Your task to perform on an android device: turn off picture-in-picture Image 0: 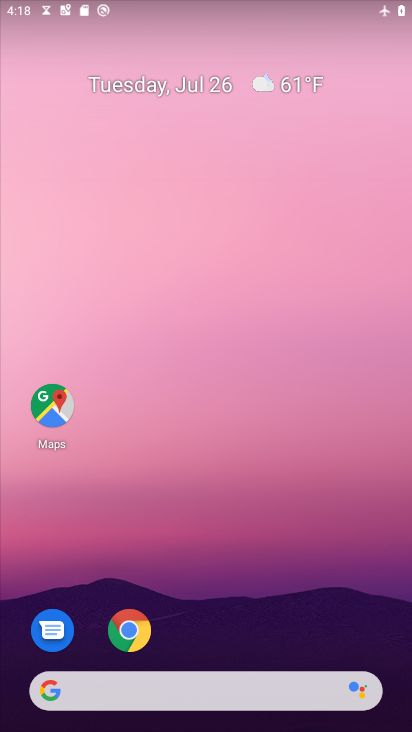
Step 0: drag from (217, 618) to (84, 116)
Your task to perform on an android device: turn off picture-in-picture Image 1: 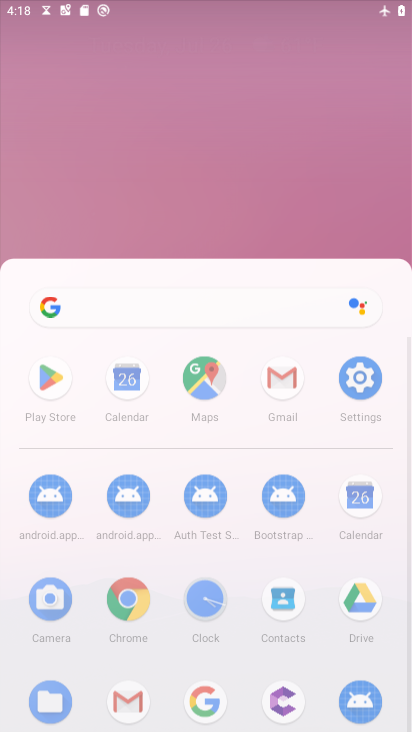
Step 1: drag from (161, 340) to (171, 45)
Your task to perform on an android device: turn off picture-in-picture Image 2: 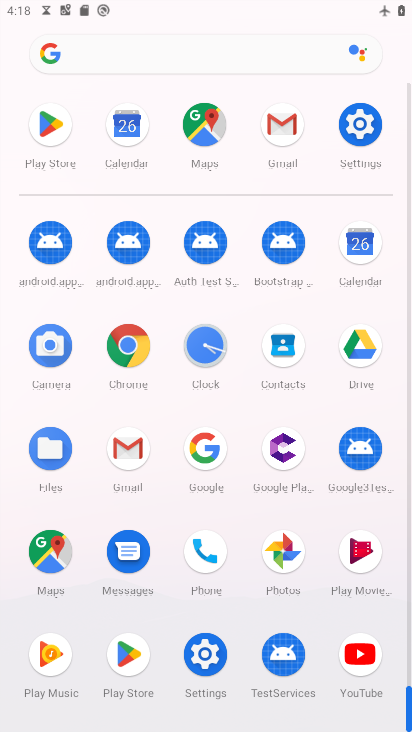
Step 2: click (133, 345)
Your task to perform on an android device: turn off picture-in-picture Image 3: 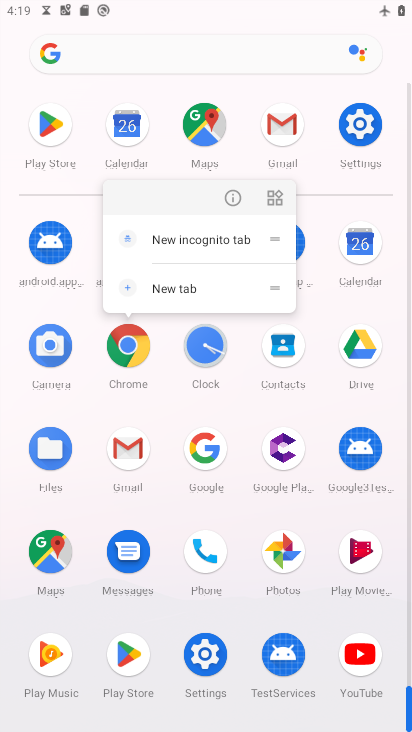
Step 3: click (222, 200)
Your task to perform on an android device: turn off picture-in-picture Image 4: 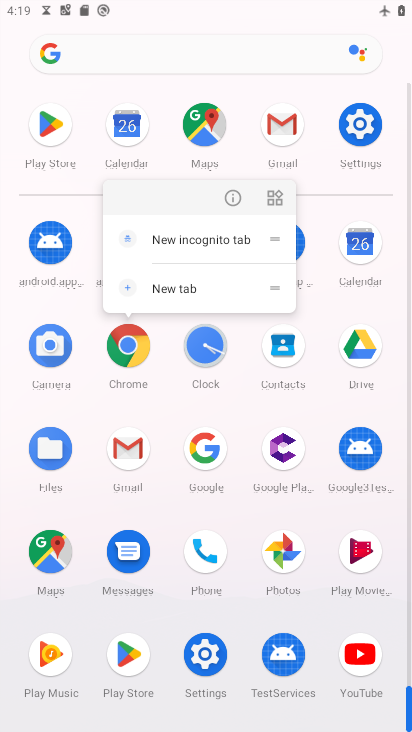
Step 4: click (226, 202)
Your task to perform on an android device: turn off picture-in-picture Image 5: 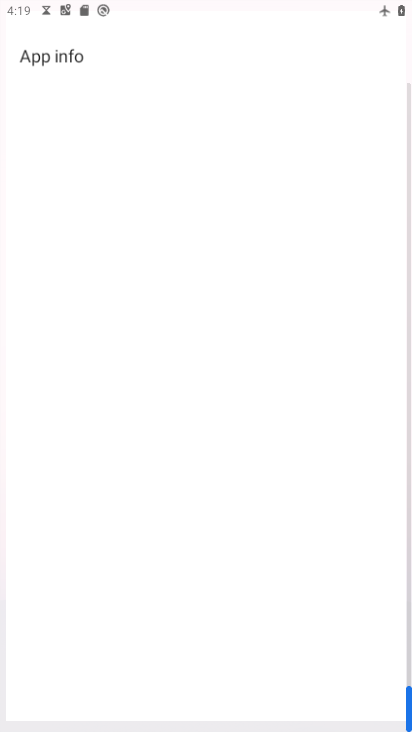
Step 5: click (226, 201)
Your task to perform on an android device: turn off picture-in-picture Image 6: 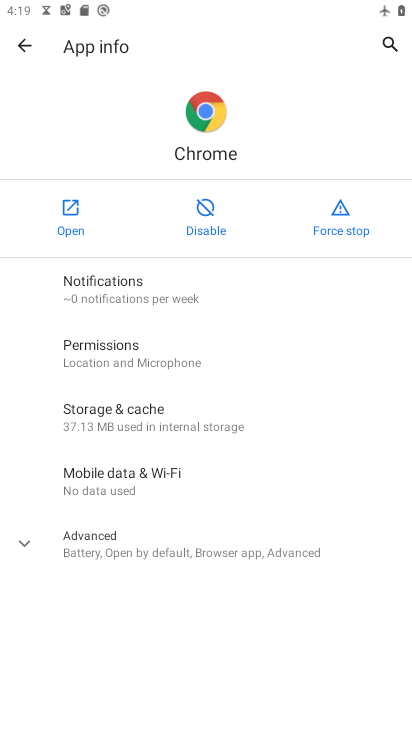
Step 6: click (94, 535)
Your task to perform on an android device: turn off picture-in-picture Image 7: 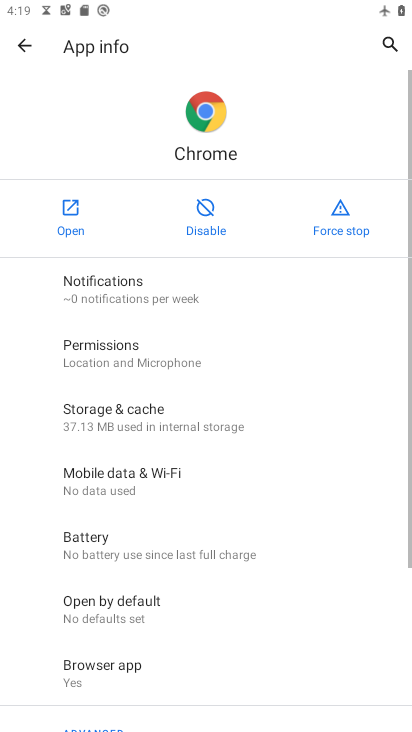
Step 7: click (94, 535)
Your task to perform on an android device: turn off picture-in-picture Image 8: 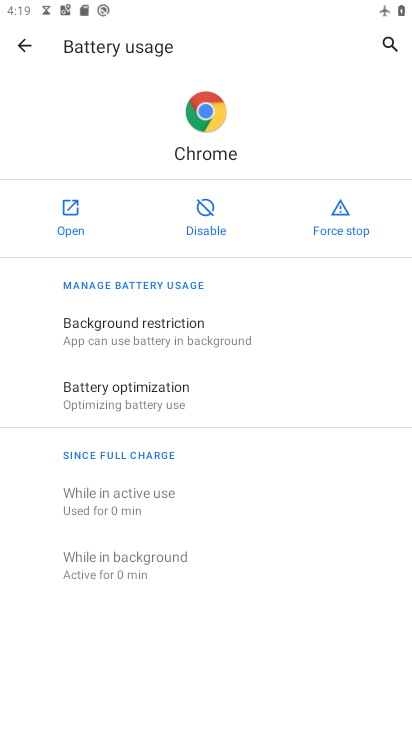
Step 8: click (21, 48)
Your task to perform on an android device: turn off picture-in-picture Image 9: 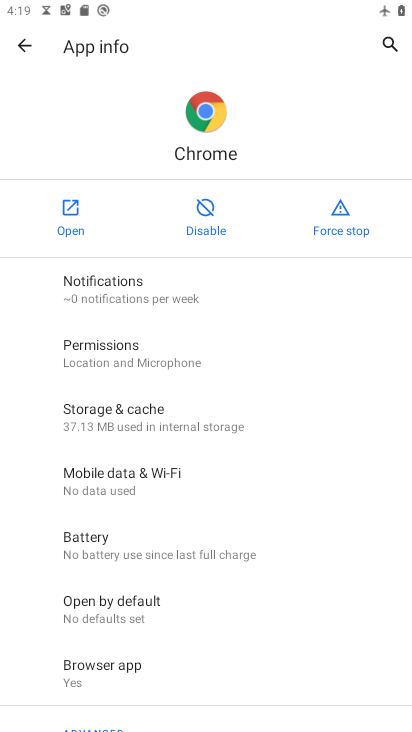
Step 9: drag from (102, 640) to (102, 282)
Your task to perform on an android device: turn off picture-in-picture Image 10: 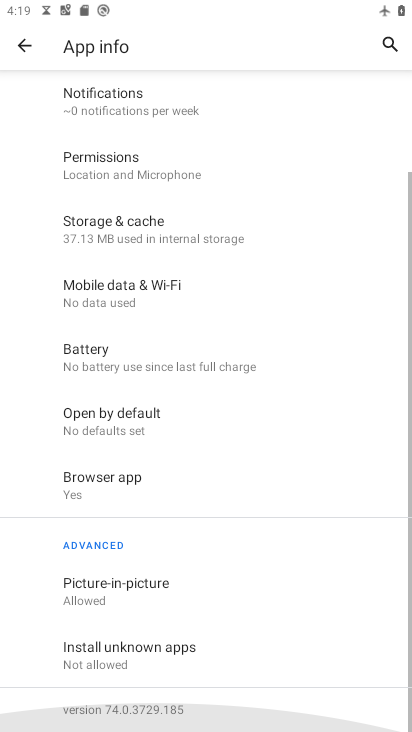
Step 10: drag from (156, 537) to (153, 444)
Your task to perform on an android device: turn off picture-in-picture Image 11: 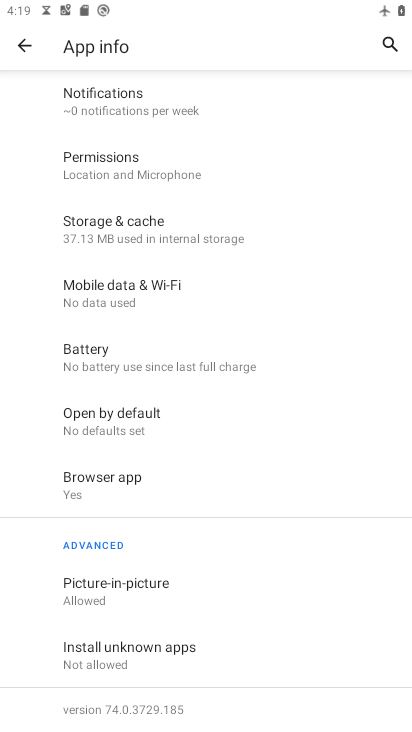
Step 11: click (94, 644)
Your task to perform on an android device: turn off picture-in-picture Image 12: 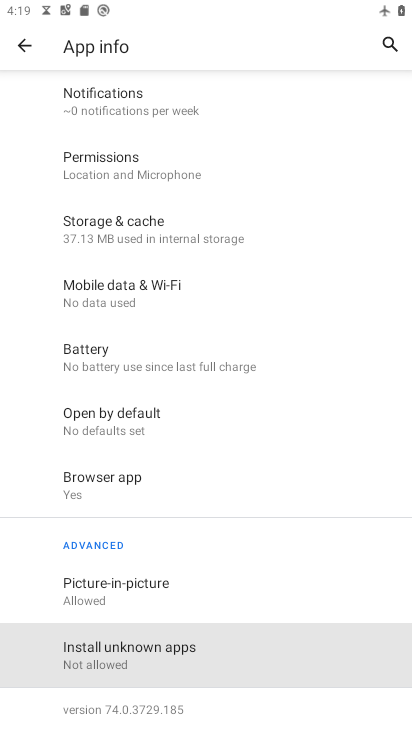
Step 12: click (93, 645)
Your task to perform on an android device: turn off picture-in-picture Image 13: 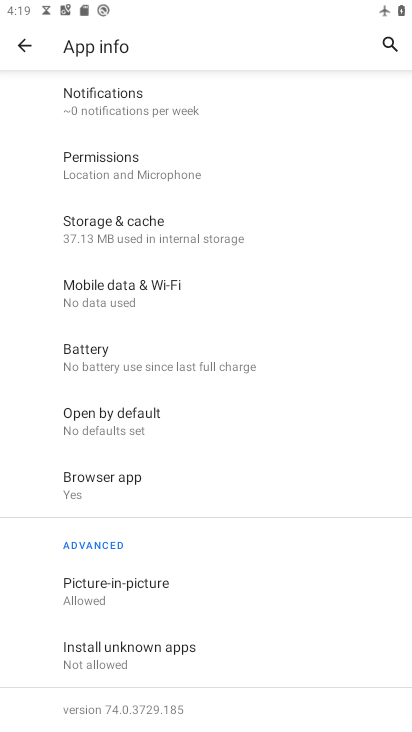
Step 13: click (94, 646)
Your task to perform on an android device: turn off picture-in-picture Image 14: 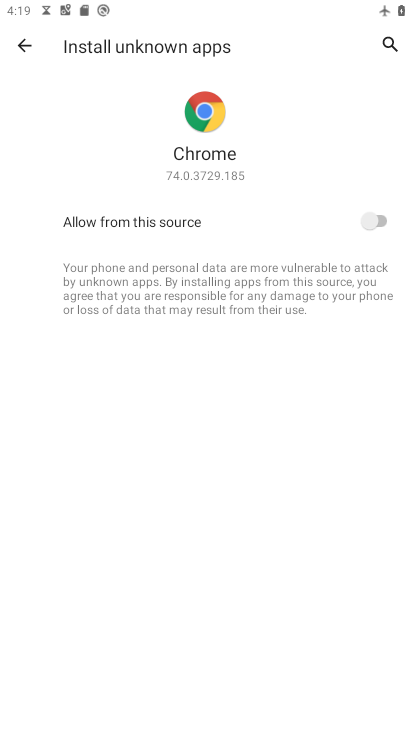
Step 14: click (92, 640)
Your task to perform on an android device: turn off picture-in-picture Image 15: 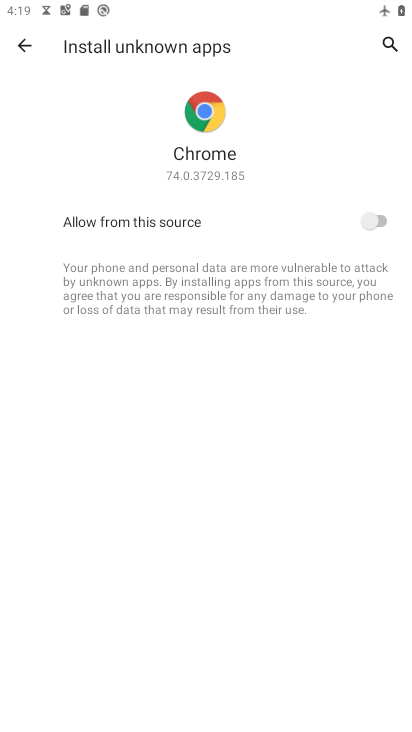
Step 15: click (19, 34)
Your task to perform on an android device: turn off picture-in-picture Image 16: 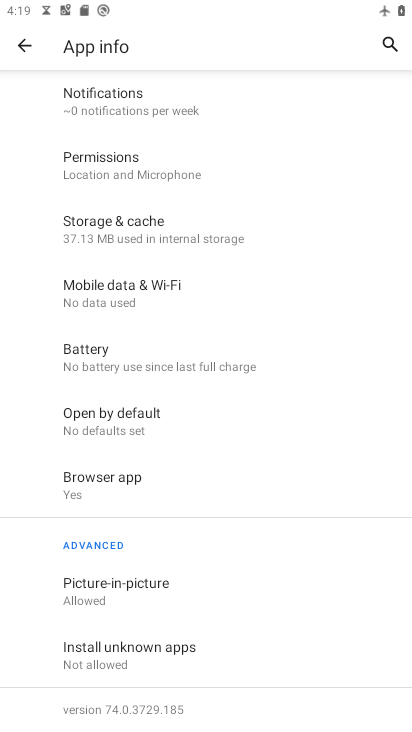
Step 16: click (88, 608)
Your task to perform on an android device: turn off picture-in-picture Image 17: 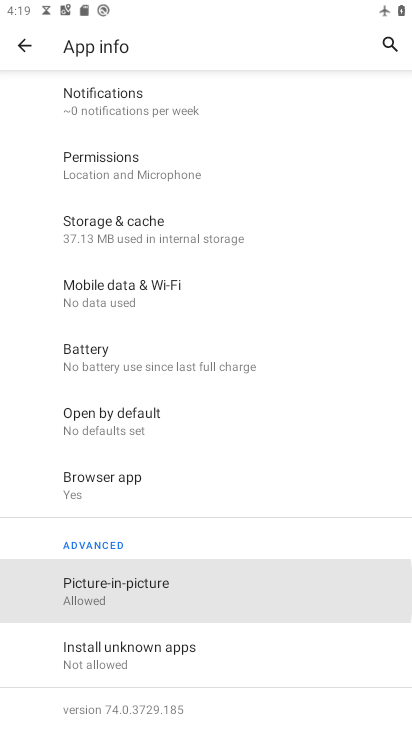
Step 17: click (90, 608)
Your task to perform on an android device: turn off picture-in-picture Image 18: 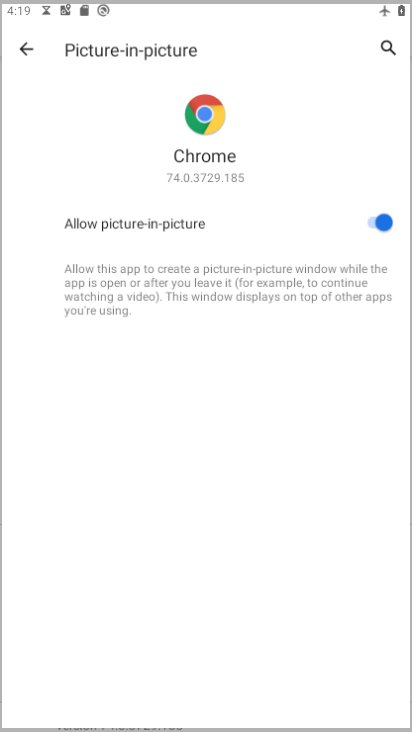
Step 18: click (91, 609)
Your task to perform on an android device: turn off picture-in-picture Image 19: 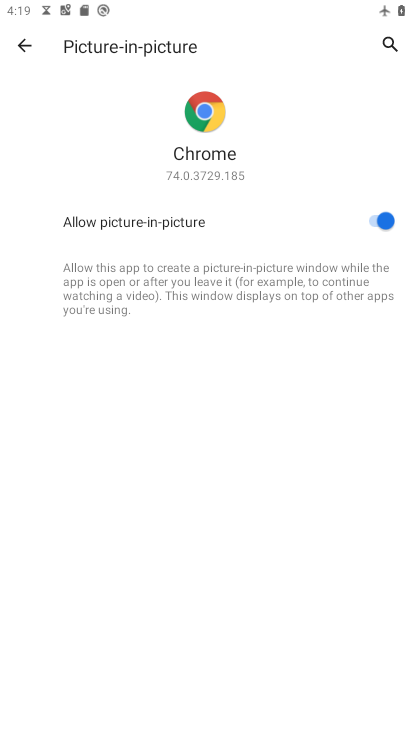
Step 19: click (91, 609)
Your task to perform on an android device: turn off picture-in-picture Image 20: 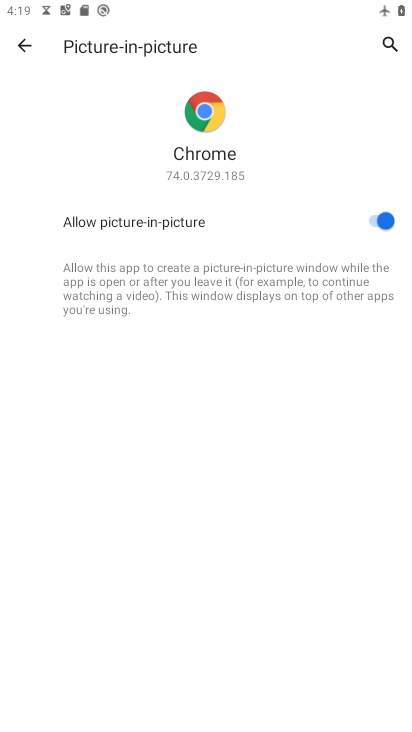
Step 20: click (90, 594)
Your task to perform on an android device: turn off picture-in-picture Image 21: 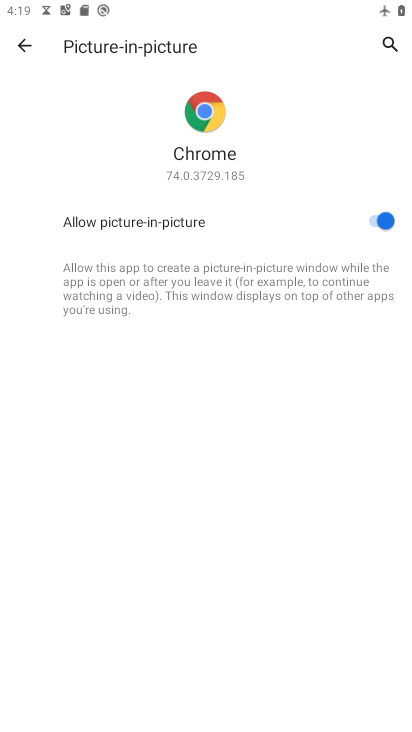
Step 21: click (376, 214)
Your task to perform on an android device: turn off picture-in-picture Image 22: 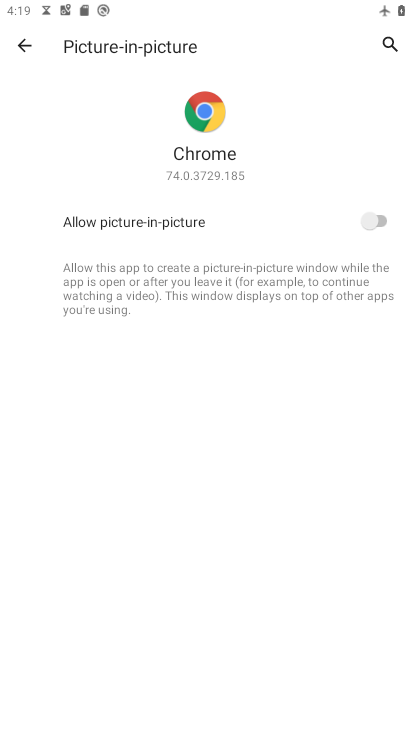
Step 22: task complete